Your task to perform on an android device: turn on location history Image 0: 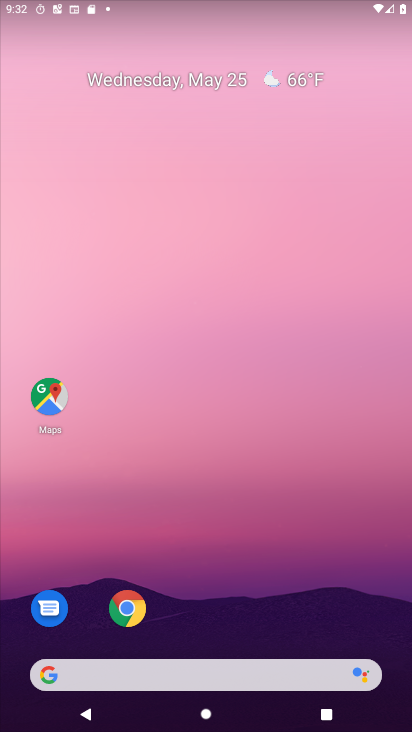
Step 0: drag from (239, 714) to (265, 150)
Your task to perform on an android device: turn on location history Image 1: 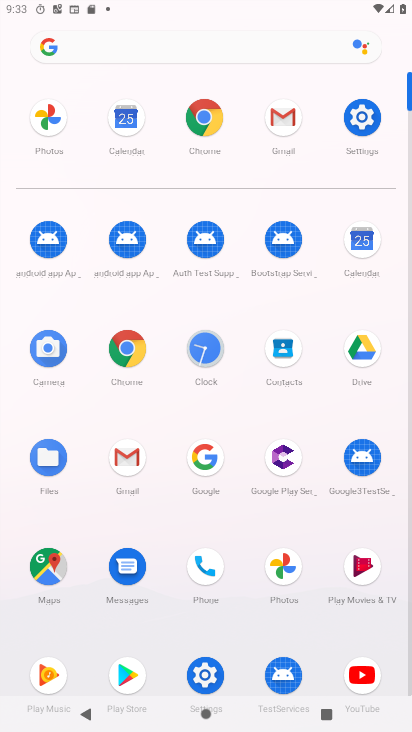
Step 1: click (360, 121)
Your task to perform on an android device: turn on location history Image 2: 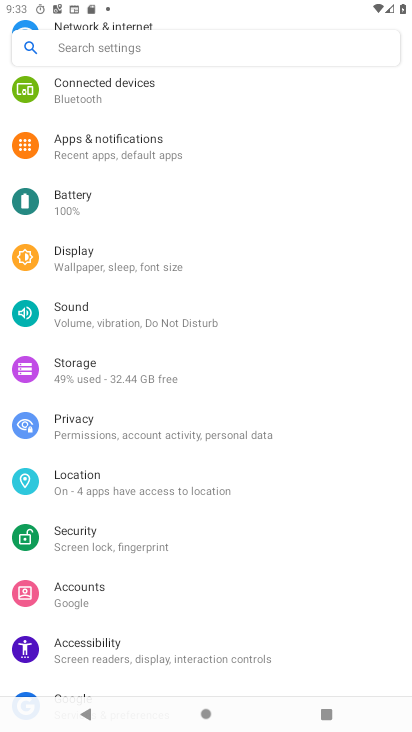
Step 2: drag from (173, 180) to (161, 555)
Your task to perform on an android device: turn on location history Image 3: 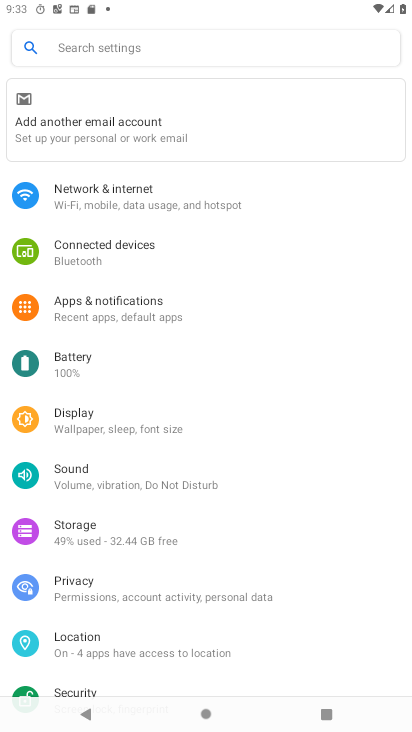
Step 3: click (107, 652)
Your task to perform on an android device: turn on location history Image 4: 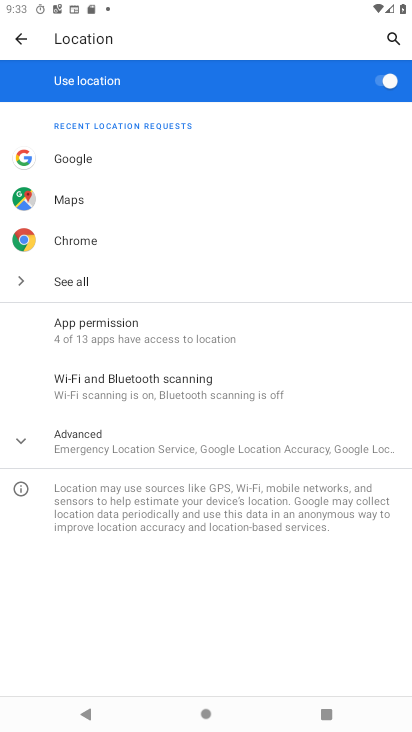
Step 4: click (95, 439)
Your task to perform on an android device: turn on location history Image 5: 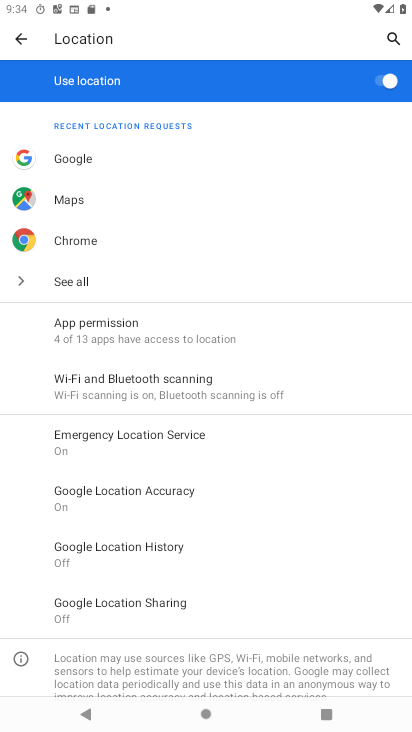
Step 5: click (143, 545)
Your task to perform on an android device: turn on location history Image 6: 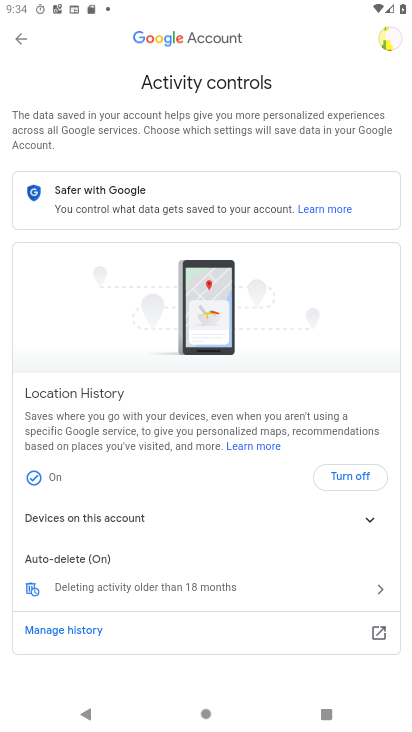
Step 6: task complete